Your task to perform on an android device: toggle location history Image 0: 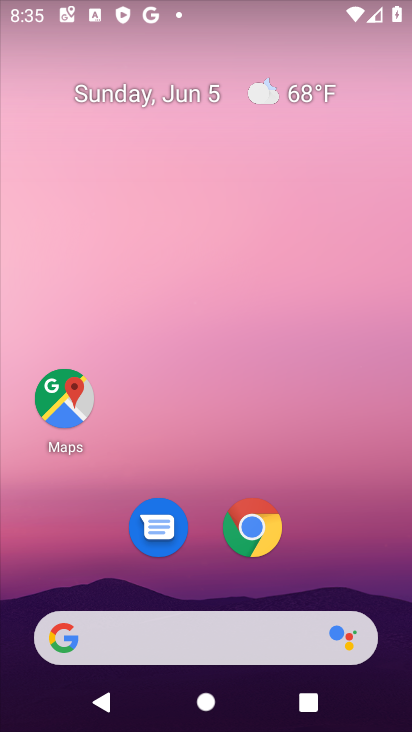
Step 0: drag from (217, 583) to (399, 323)
Your task to perform on an android device: toggle location history Image 1: 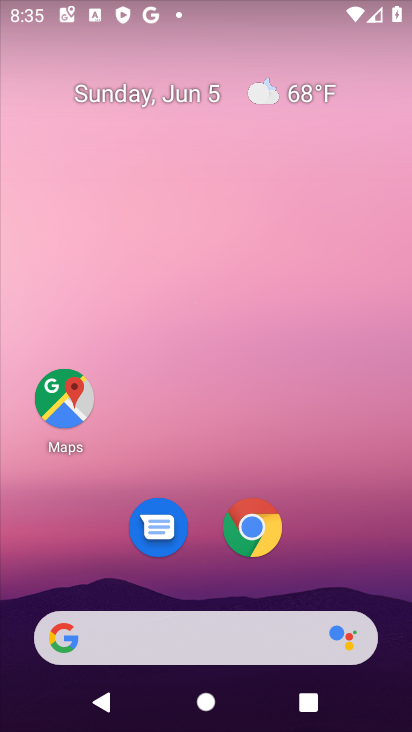
Step 1: drag from (190, 601) to (221, 128)
Your task to perform on an android device: toggle location history Image 2: 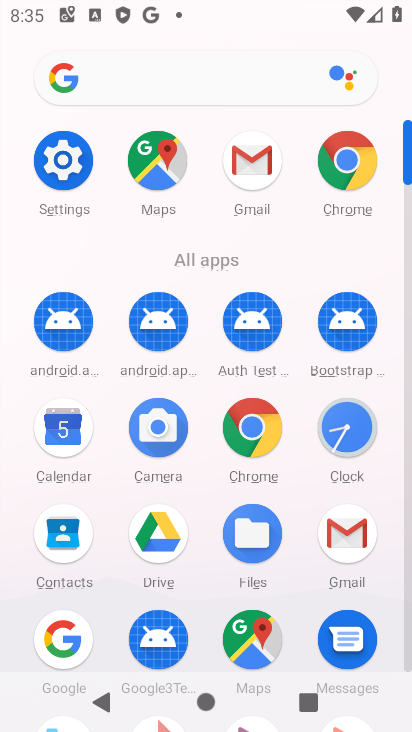
Step 2: click (79, 155)
Your task to perform on an android device: toggle location history Image 3: 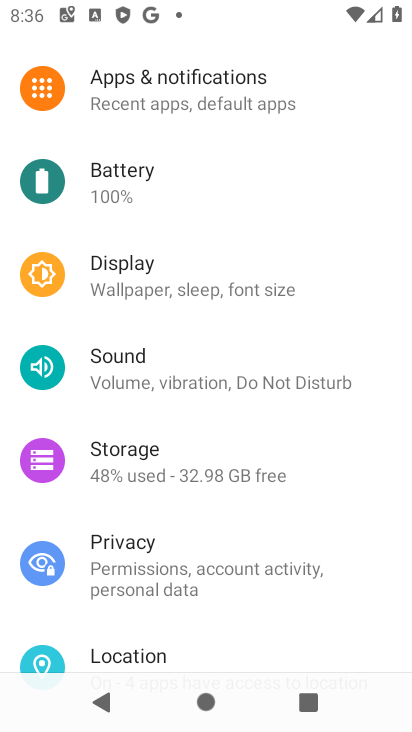
Step 3: click (42, 666)
Your task to perform on an android device: toggle location history Image 4: 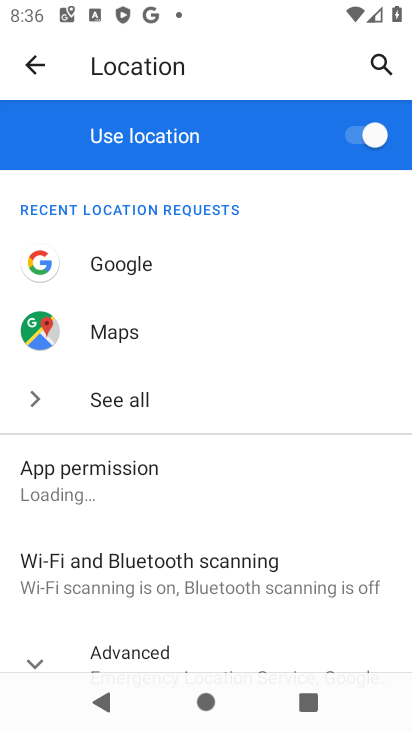
Step 4: drag from (68, 599) to (214, 193)
Your task to perform on an android device: toggle location history Image 5: 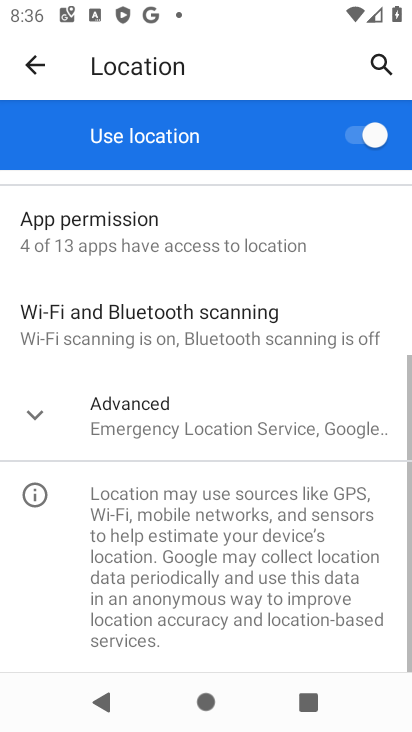
Step 5: click (177, 430)
Your task to perform on an android device: toggle location history Image 6: 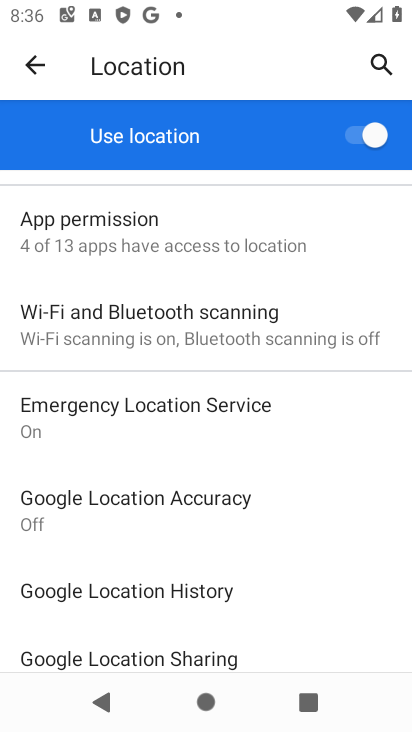
Step 6: click (129, 605)
Your task to perform on an android device: toggle location history Image 7: 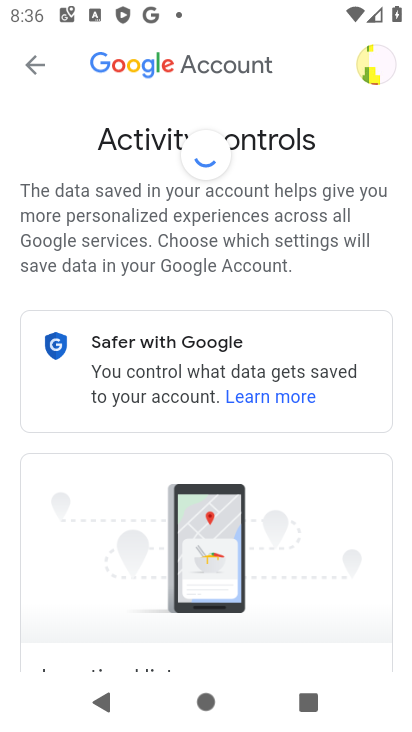
Step 7: drag from (126, 569) to (202, 258)
Your task to perform on an android device: toggle location history Image 8: 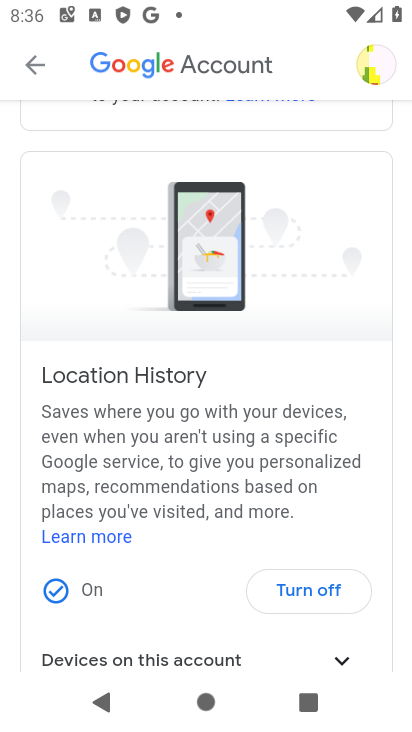
Step 8: click (295, 592)
Your task to perform on an android device: toggle location history Image 9: 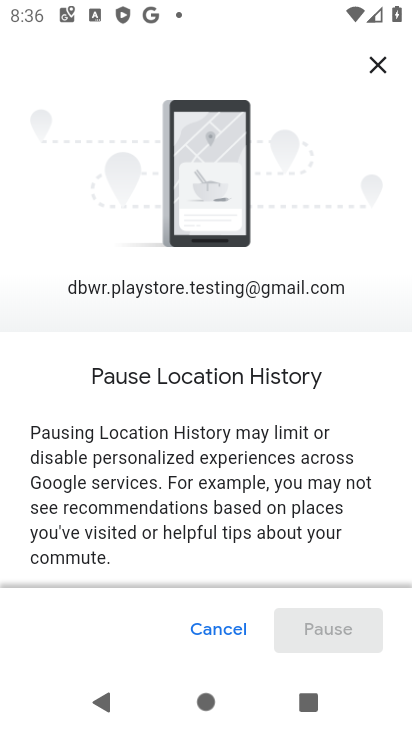
Step 9: task complete